Your task to perform on an android device: Open accessibility settings Image 0: 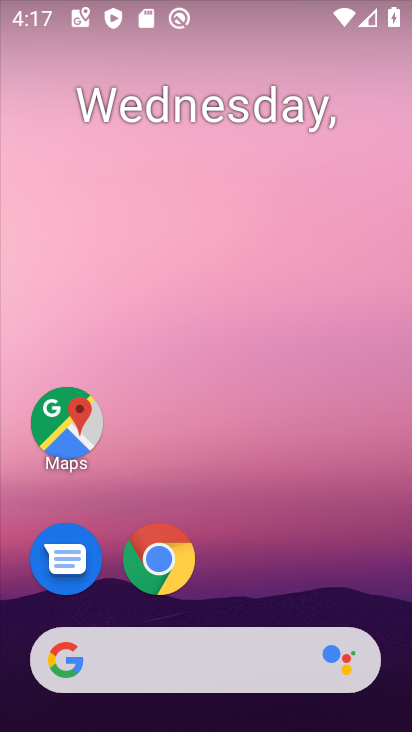
Step 0: drag from (246, 548) to (267, 1)
Your task to perform on an android device: Open accessibility settings Image 1: 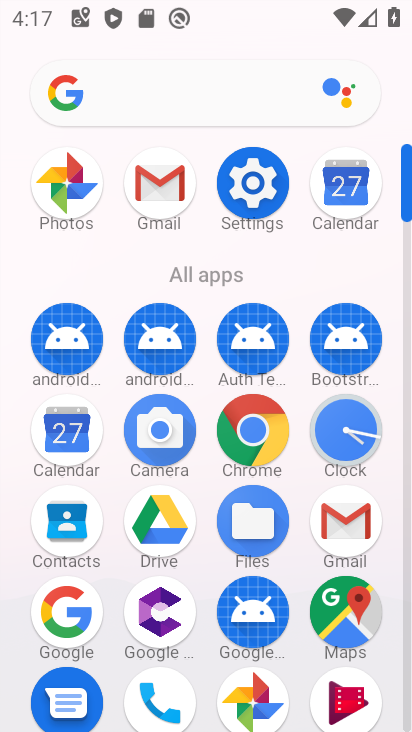
Step 1: click (268, 181)
Your task to perform on an android device: Open accessibility settings Image 2: 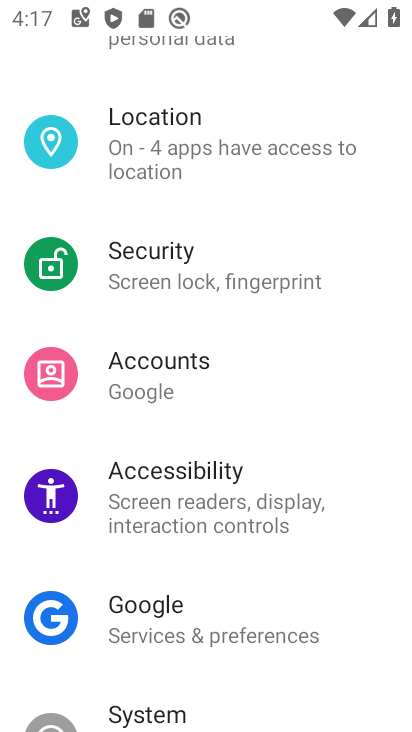
Step 2: click (166, 487)
Your task to perform on an android device: Open accessibility settings Image 3: 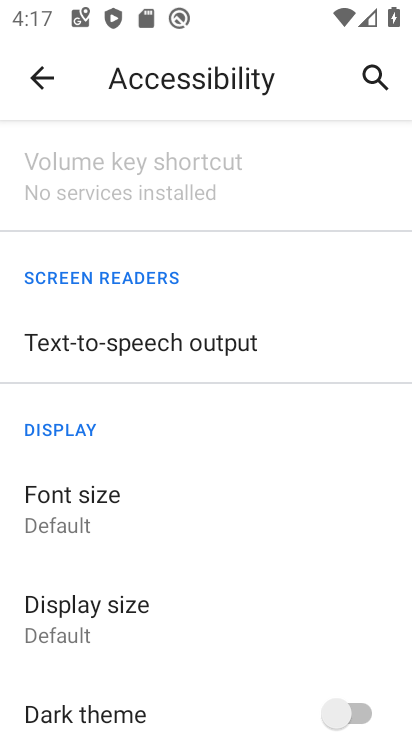
Step 3: task complete